Your task to perform on an android device: toggle notifications settings in the gmail app Image 0: 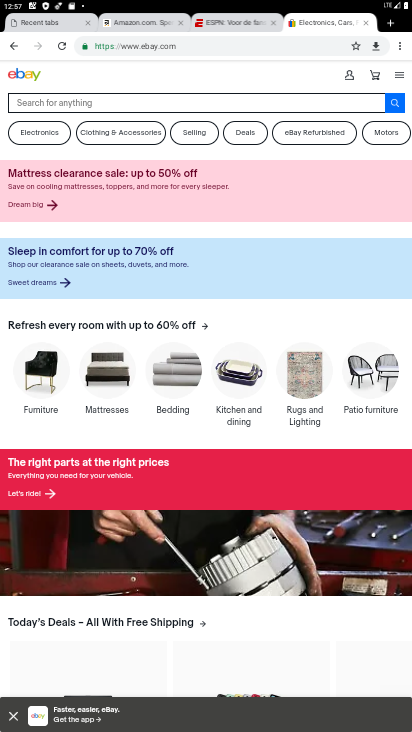
Step 0: press home button
Your task to perform on an android device: toggle notifications settings in the gmail app Image 1: 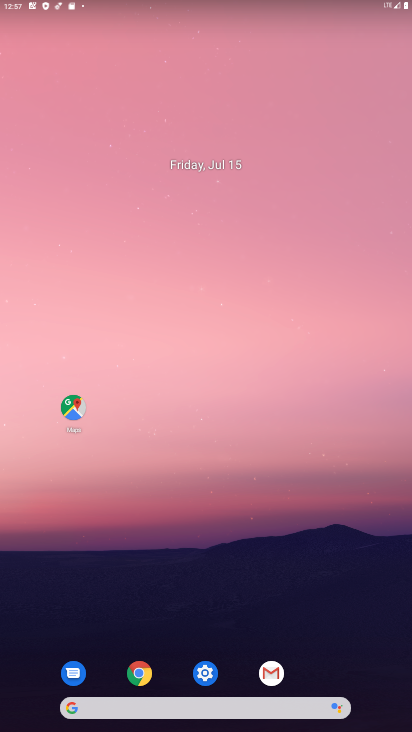
Step 1: click (272, 670)
Your task to perform on an android device: toggle notifications settings in the gmail app Image 2: 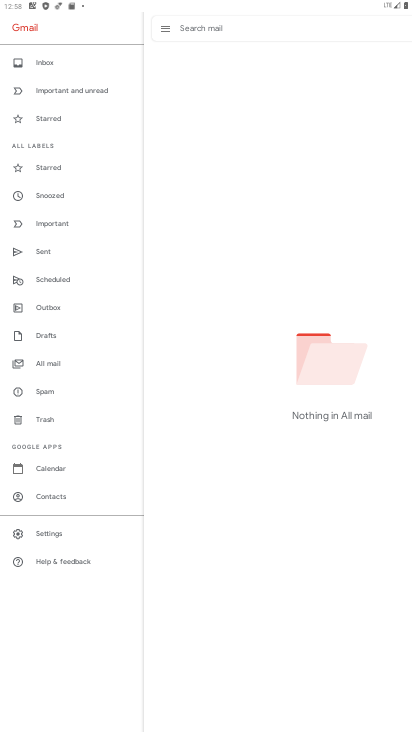
Step 2: click (46, 530)
Your task to perform on an android device: toggle notifications settings in the gmail app Image 3: 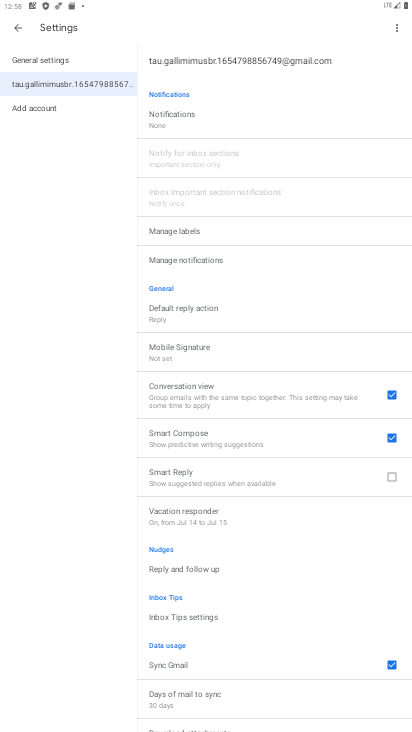
Step 3: click (179, 122)
Your task to perform on an android device: toggle notifications settings in the gmail app Image 4: 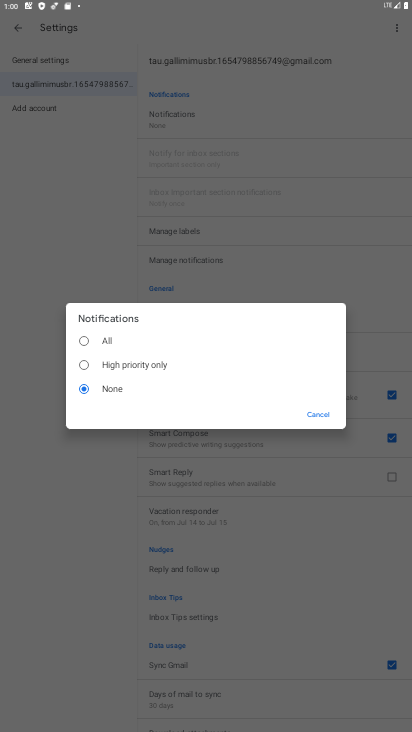
Step 4: task complete